Your task to perform on an android device: Clear all items from cart on newegg. Image 0: 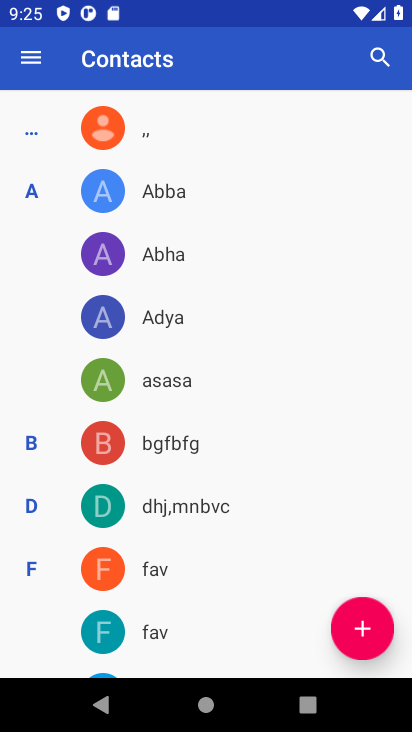
Step 0: press home button
Your task to perform on an android device: Clear all items from cart on newegg. Image 1: 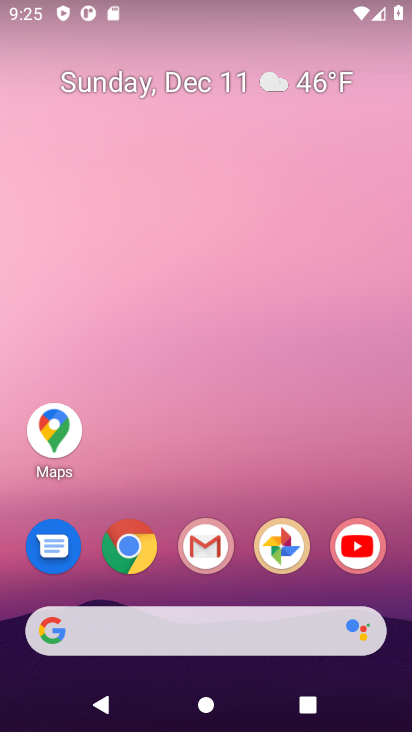
Step 1: click (132, 550)
Your task to perform on an android device: Clear all items from cart on newegg. Image 2: 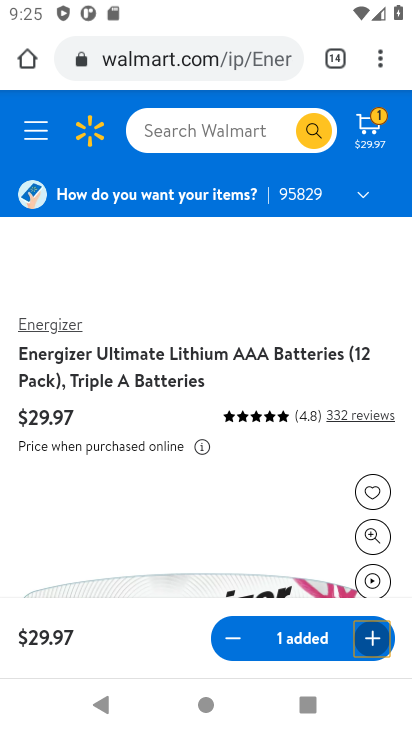
Step 2: click (127, 66)
Your task to perform on an android device: Clear all items from cart on newegg. Image 3: 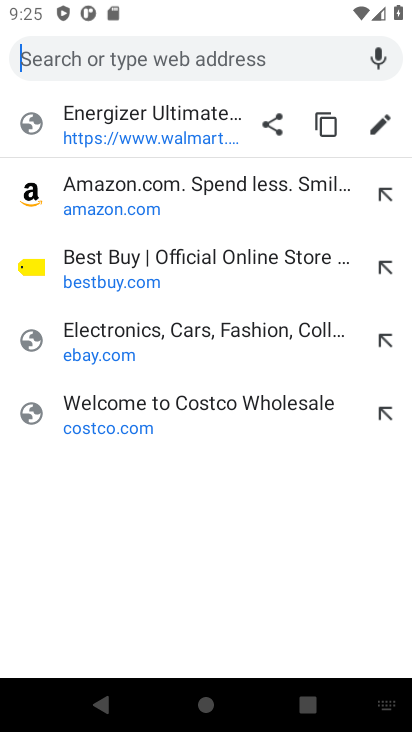
Step 3: type "newegg.com"
Your task to perform on an android device: Clear all items from cart on newegg. Image 4: 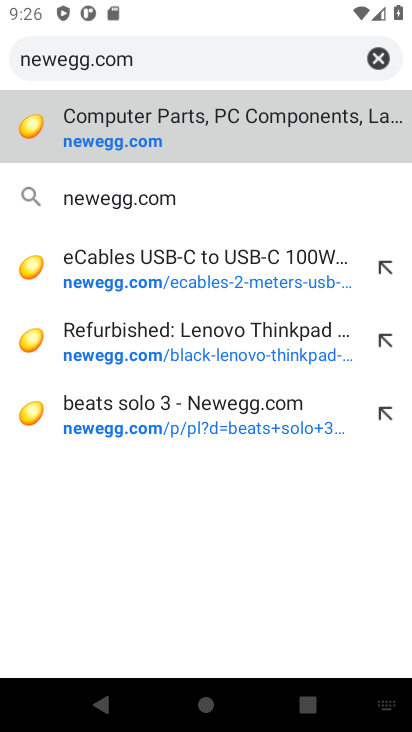
Step 4: click (92, 144)
Your task to perform on an android device: Clear all items from cart on newegg. Image 5: 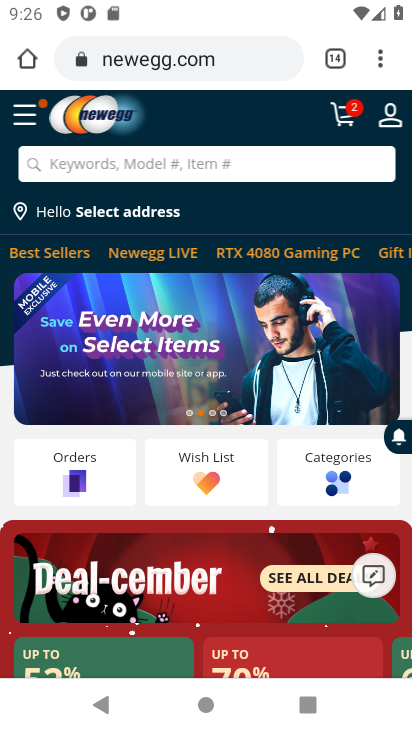
Step 5: click (342, 119)
Your task to perform on an android device: Clear all items from cart on newegg. Image 6: 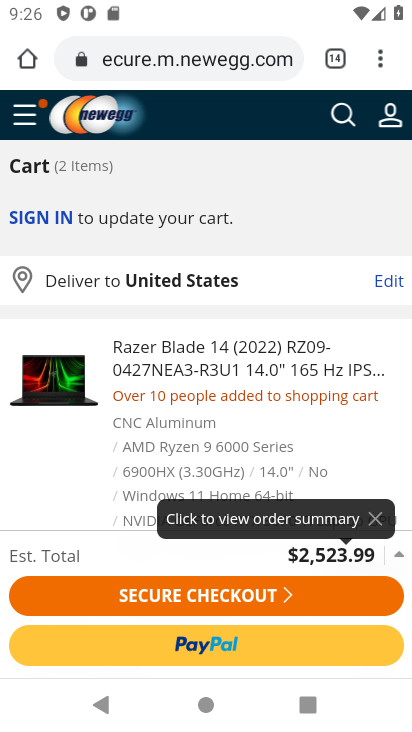
Step 6: drag from (198, 379) to (189, 176)
Your task to perform on an android device: Clear all items from cart on newegg. Image 7: 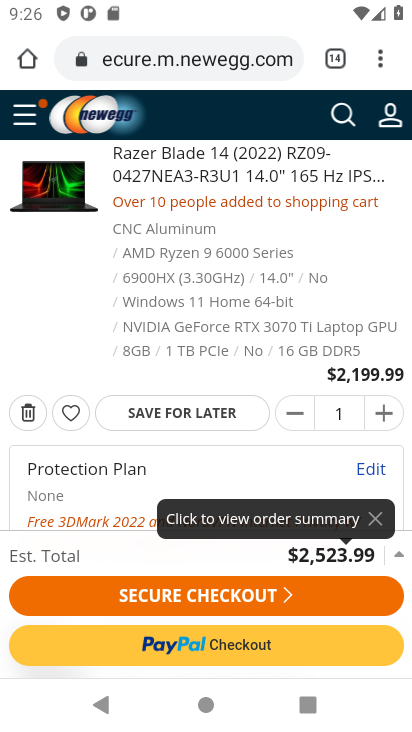
Step 7: click (30, 418)
Your task to perform on an android device: Clear all items from cart on newegg. Image 8: 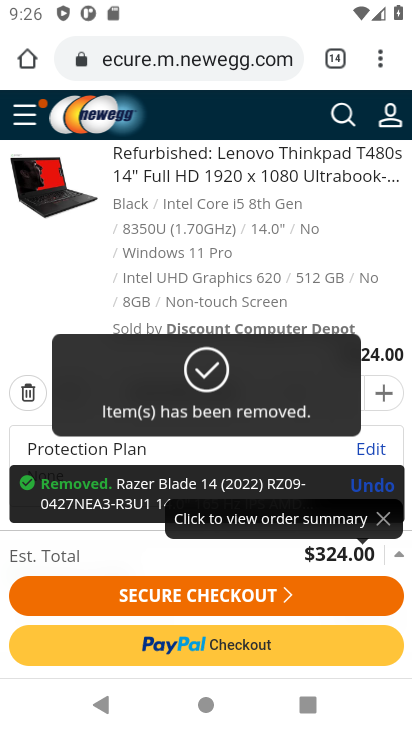
Step 8: click (29, 399)
Your task to perform on an android device: Clear all items from cart on newegg. Image 9: 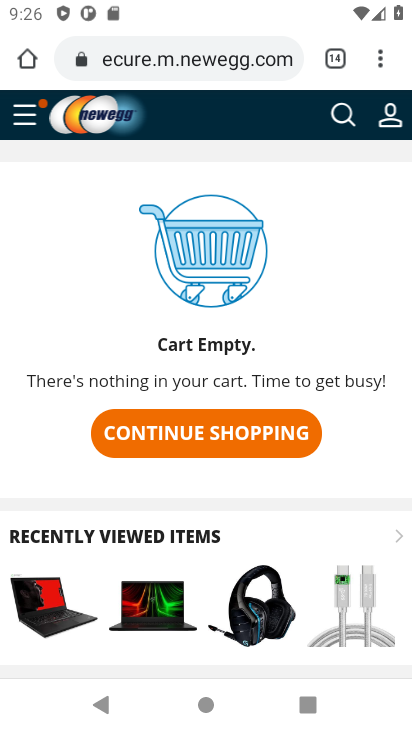
Step 9: task complete